Your task to perform on an android device: Play the last video I watched on Youtube Image 0: 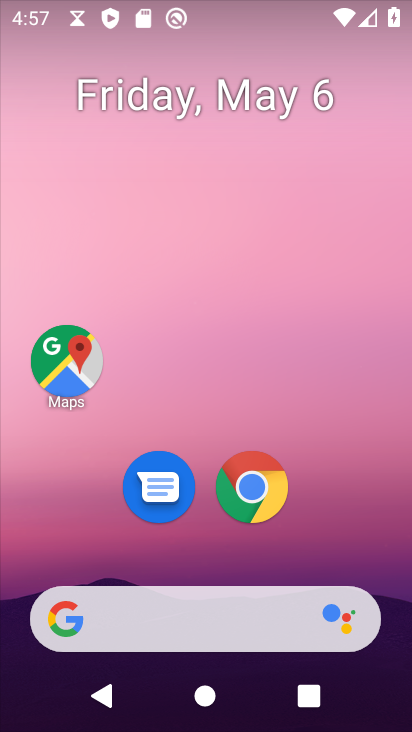
Step 0: drag from (324, 565) to (371, 8)
Your task to perform on an android device: Play the last video I watched on Youtube Image 1: 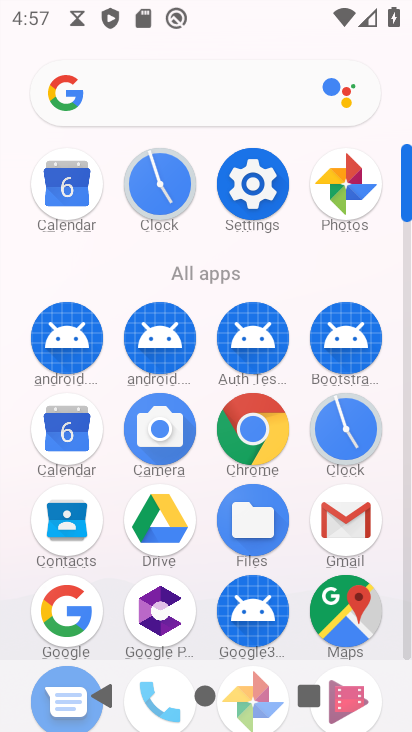
Step 1: drag from (294, 570) to (279, 286)
Your task to perform on an android device: Play the last video I watched on Youtube Image 2: 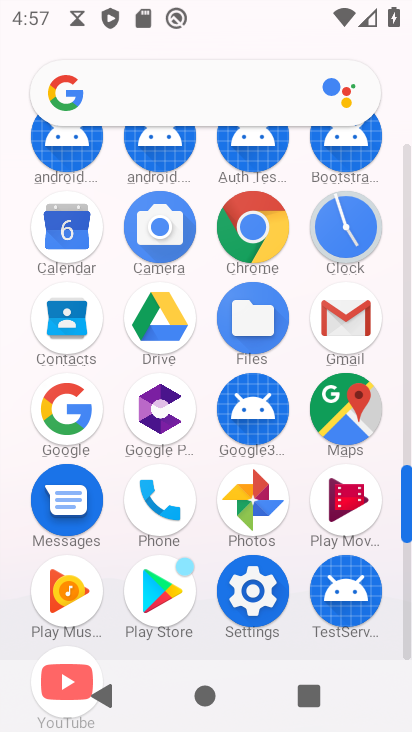
Step 2: drag from (205, 607) to (216, 445)
Your task to perform on an android device: Play the last video I watched on Youtube Image 3: 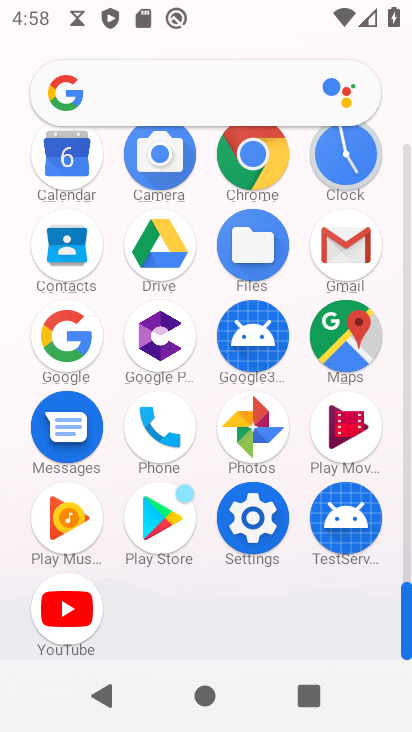
Step 3: click (66, 608)
Your task to perform on an android device: Play the last video I watched on Youtube Image 4: 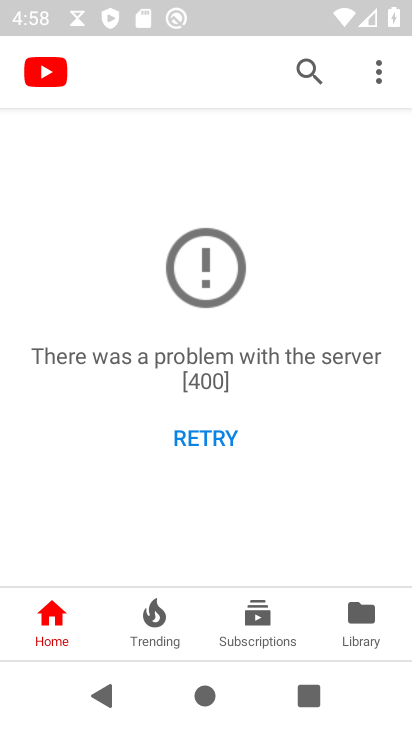
Step 4: click (357, 616)
Your task to perform on an android device: Play the last video I watched on Youtube Image 5: 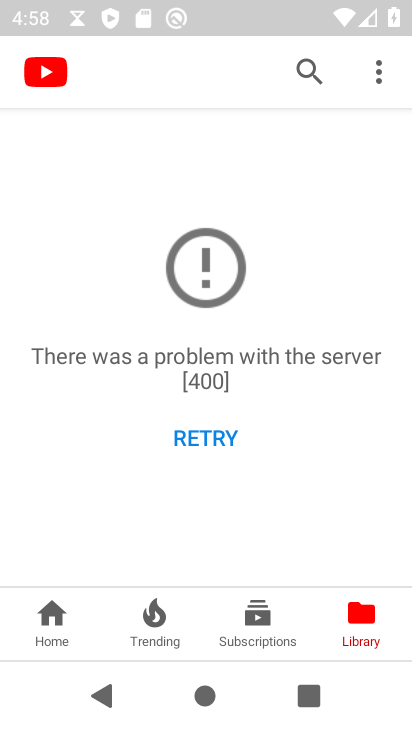
Step 5: click (221, 444)
Your task to perform on an android device: Play the last video I watched on Youtube Image 6: 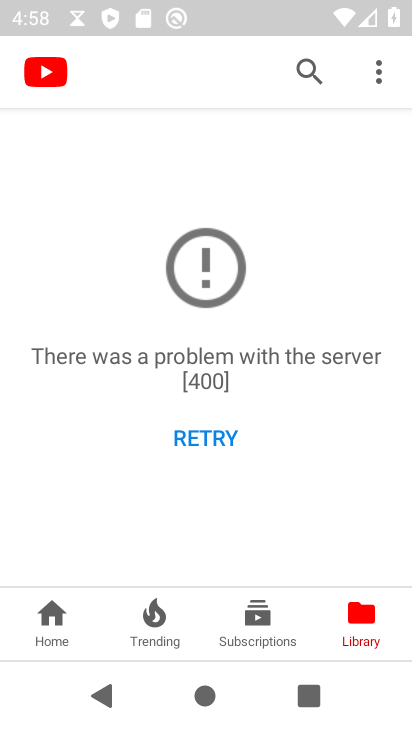
Step 6: task complete